Your task to perform on an android device: Show me productivity apps on the Play Store Image 0: 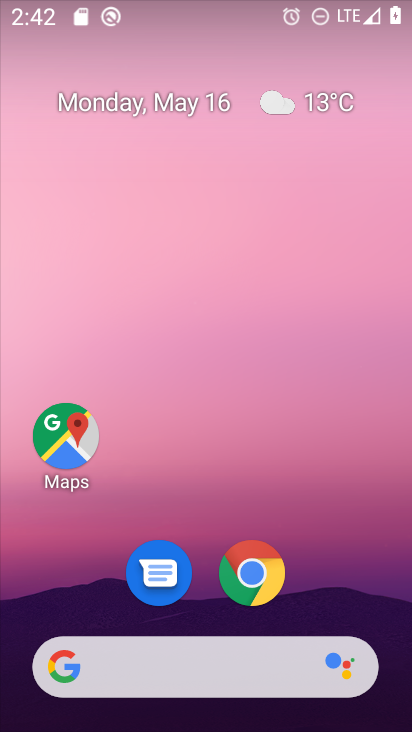
Step 0: drag from (144, 663) to (121, 52)
Your task to perform on an android device: Show me productivity apps on the Play Store Image 1: 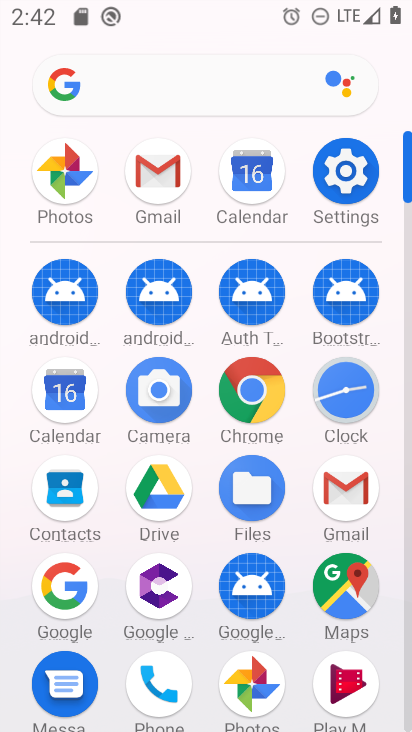
Step 1: drag from (246, 604) to (235, 88)
Your task to perform on an android device: Show me productivity apps on the Play Store Image 2: 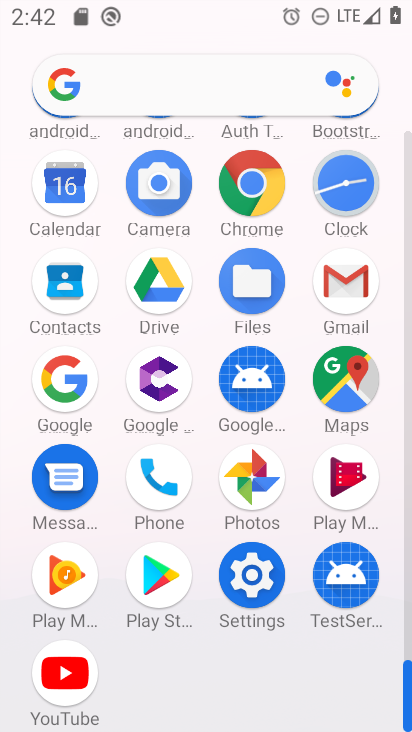
Step 2: click (177, 602)
Your task to perform on an android device: Show me productivity apps on the Play Store Image 3: 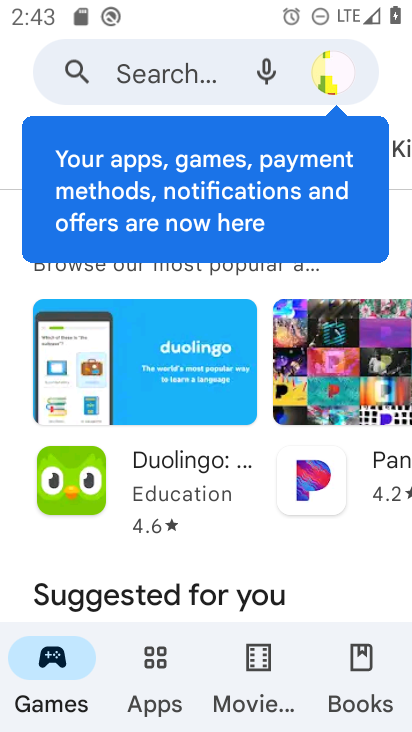
Step 3: click (152, 670)
Your task to perform on an android device: Show me productivity apps on the Play Store Image 4: 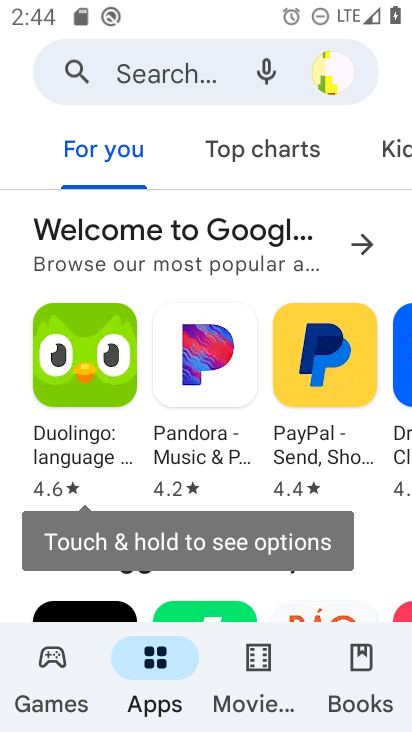
Step 4: drag from (394, 163) to (165, 154)
Your task to perform on an android device: Show me productivity apps on the Play Store Image 5: 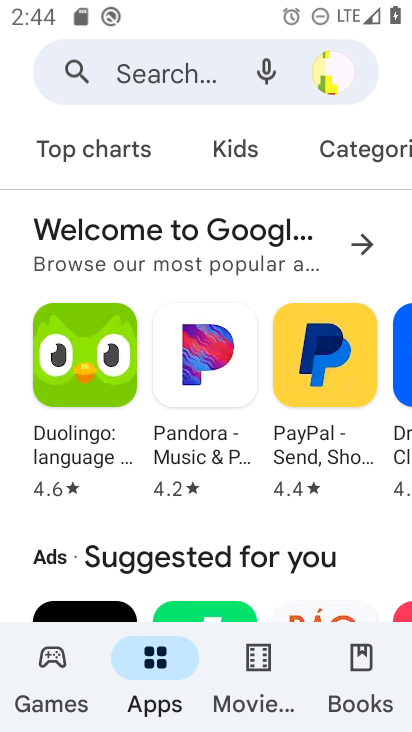
Step 5: click (354, 151)
Your task to perform on an android device: Show me productivity apps on the Play Store Image 6: 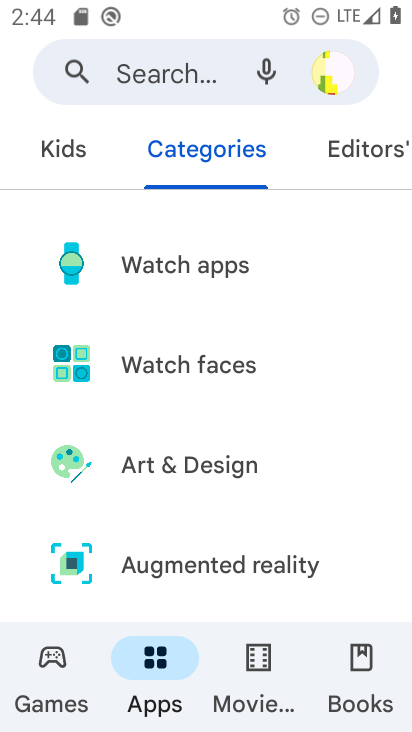
Step 6: drag from (215, 592) to (200, 82)
Your task to perform on an android device: Show me productivity apps on the Play Store Image 7: 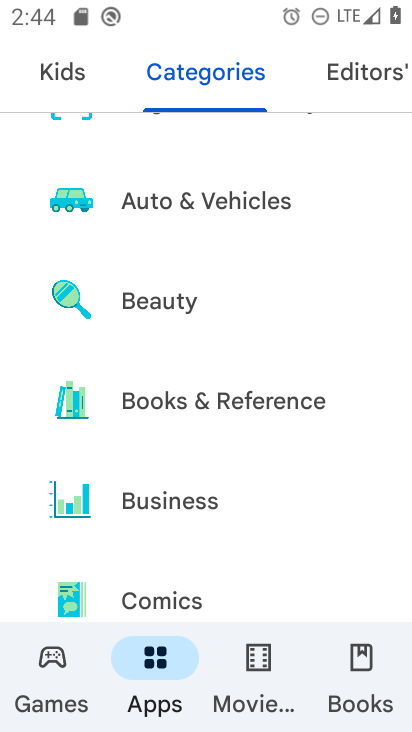
Step 7: drag from (235, 530) to (235, 12)
Your task to perform on an android device: Show me productivity apps on the Play Store Image 8: 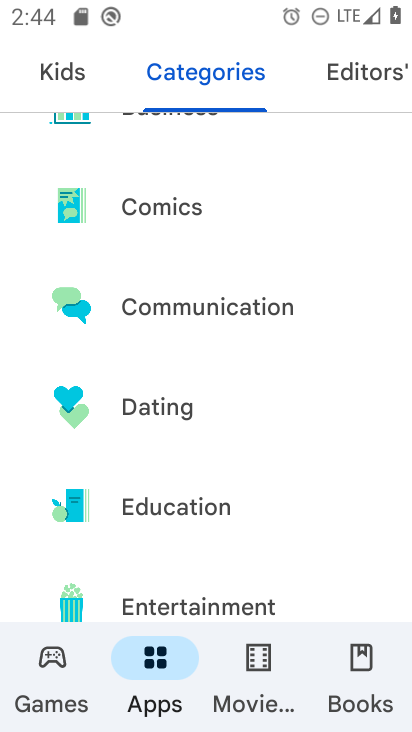
Step 8: drag from (211, 588) to (237, 39)
Your task to perform on an android device: Show me productivity apps on the Play Store Image 9: 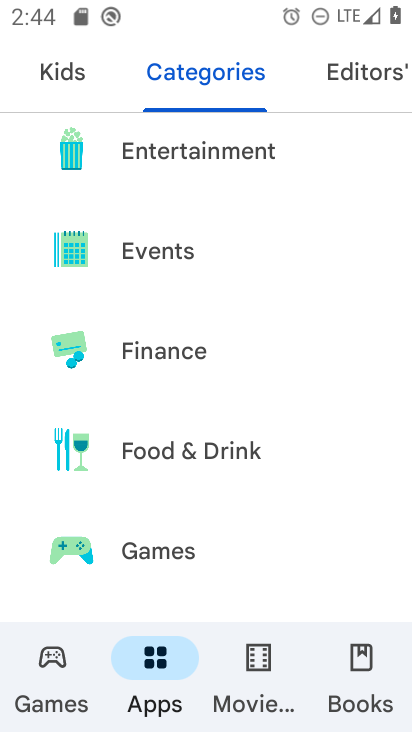
Step 9: drag from (239, 548) to (225, 18)
Your task to perform on an android device: Show me productivity apps on the Play Store Image 10: 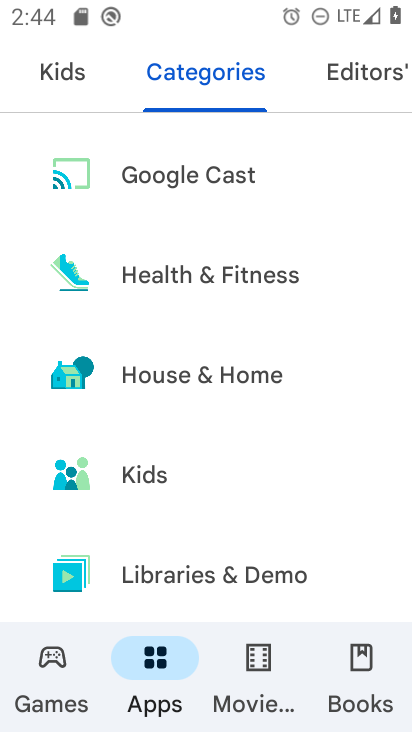
Step 10: drag from (217, 533) to (225, 130)
Your task to perform on an android device: Show me productivity apps on the Play Store Image 11: 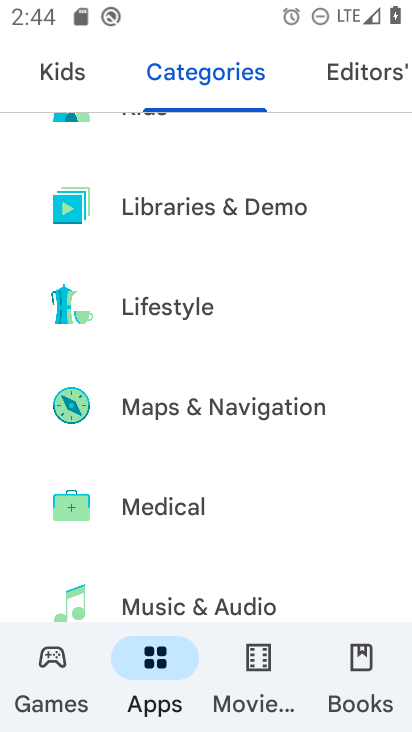
Step 11: drag from (194, 507) to (189, 86)
Your task to perform on an android device: Show me productivity apps on the Play Store Image 12: 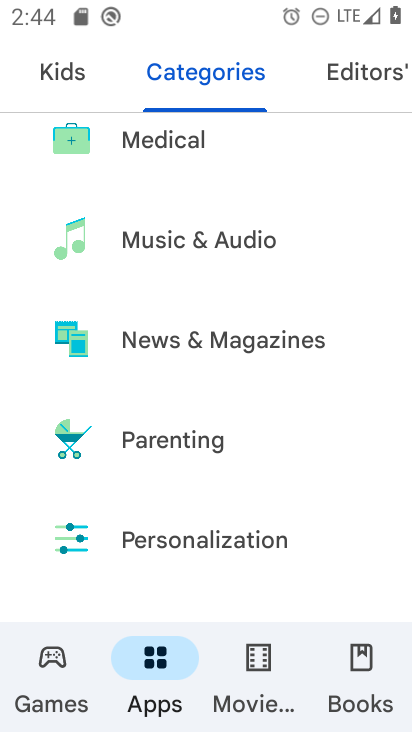
Step 12: drag from (162, 549) to (168, 158)
Your task to perform on an android device: Show me productivity apps on the Play Store Image 13: 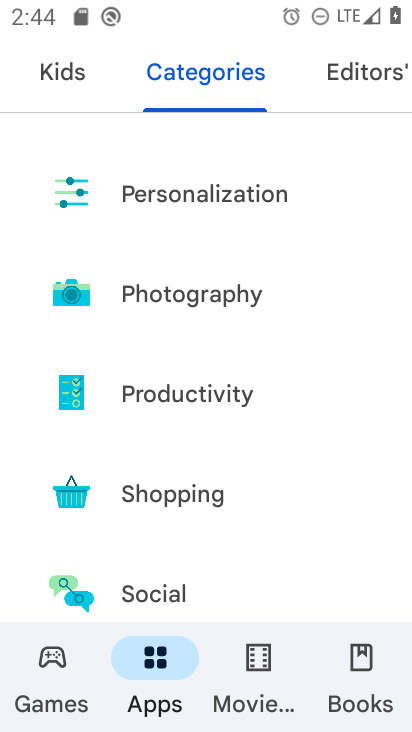
Step 13: click (181, 391)
Your task to perform on an android device: Show me productivity apps on the Play Store Image 14: 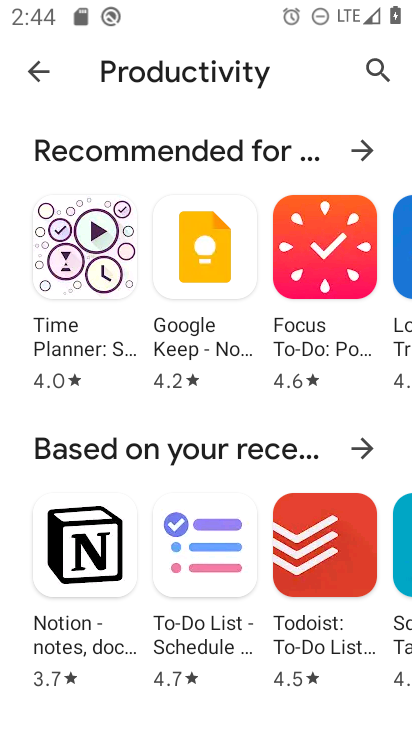
Step 14: task complete